Your task to perform on an android device: turn on sleep mode Image 0: 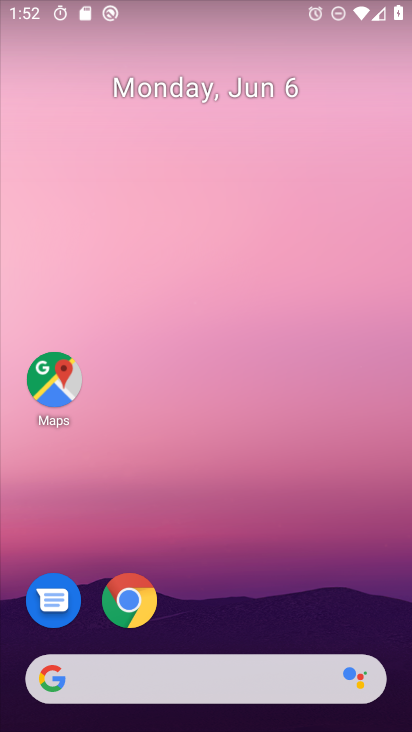
Step 0: drag from (224, 625) to (223, 188)
Your task to perform on an android device: turn on sleep mode Image 1: 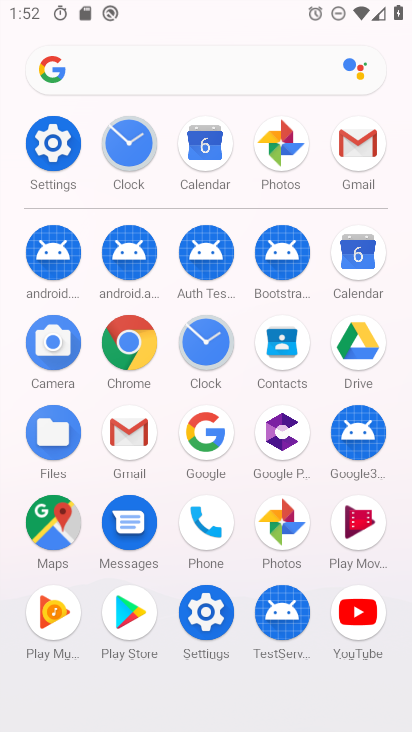
Step 1: click (58, 164)
Your task to perform on an android device: turn on sleep mode Image 2: 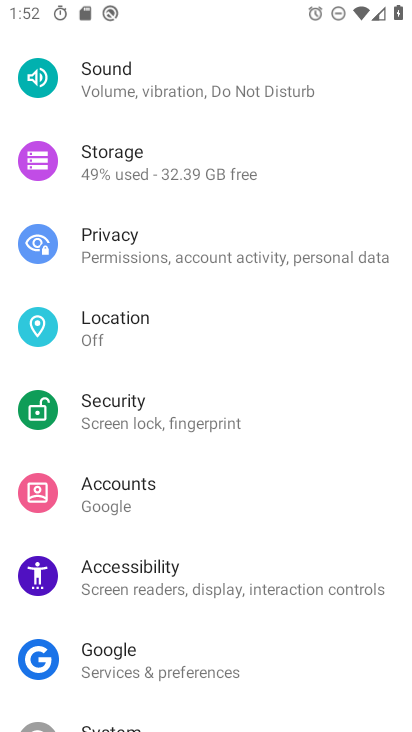
Step 2: drag from (197, 142) to (197, 524)
Your task to perform on an android device: turn on sleep mode Image 3: 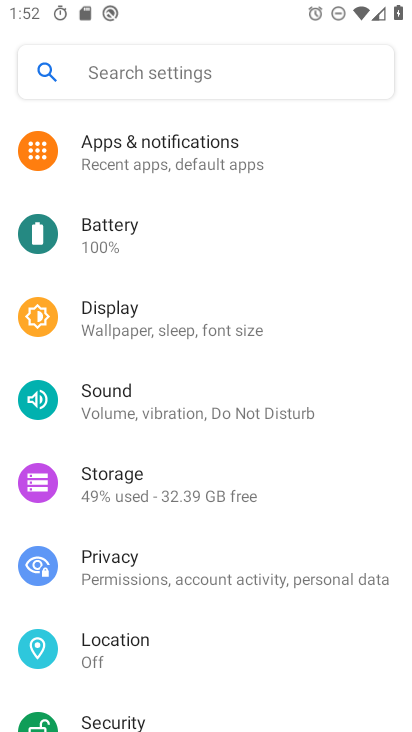
Step 3: click (168, 329)
Your task to perform on an android device: turn on sleep mode Image 4: 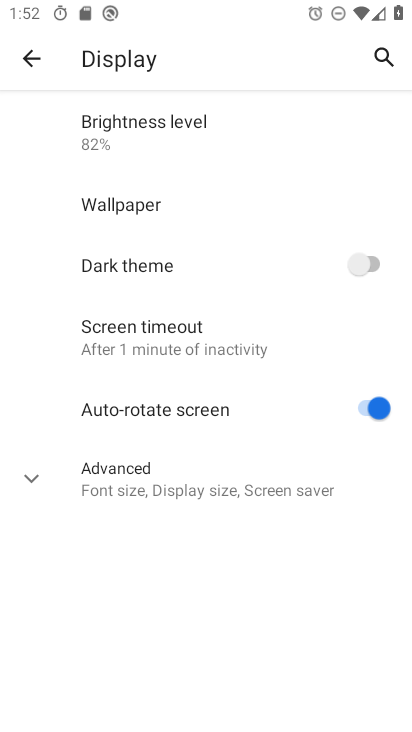
Step 4: click (191, 341)
Your task to perform on an android device: turn on sleep mode Image 5: 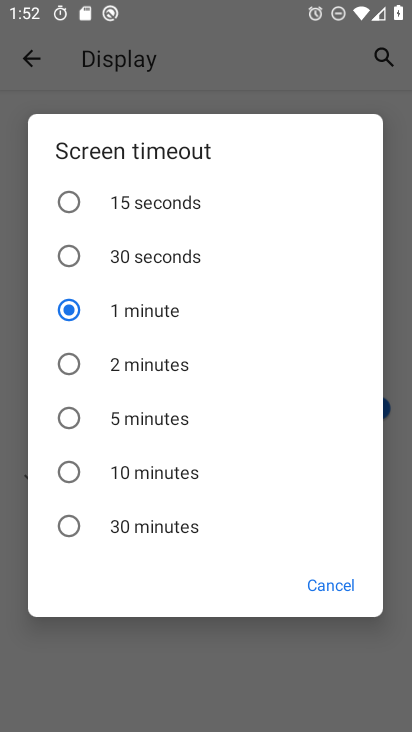
Step 5: click (182, 434)
Your task to perform on an android device: turn on sleep mode Image 6: 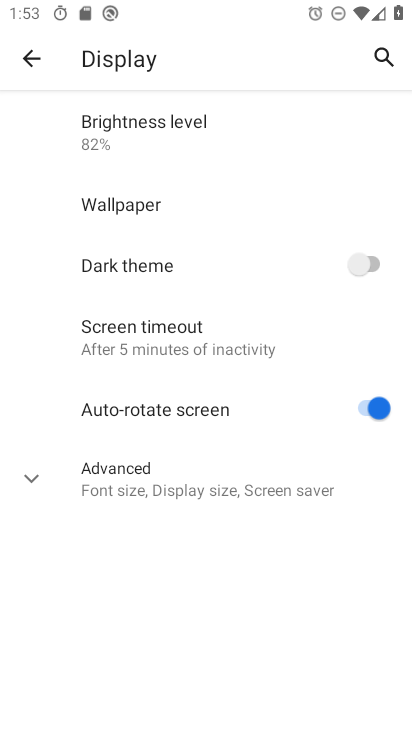
Step 6: click (163, 321)
Your task to perform on an android device: turn on sleep mode Image 7: 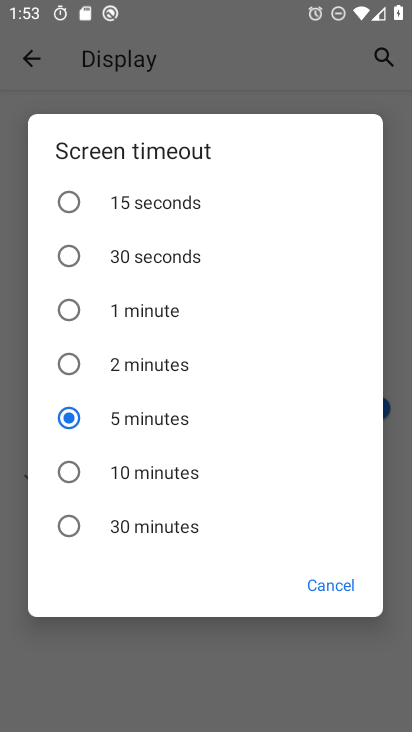
Step 7: click (156, 369)
Your task to perform on an android device: turn on sleep mode Image 8: 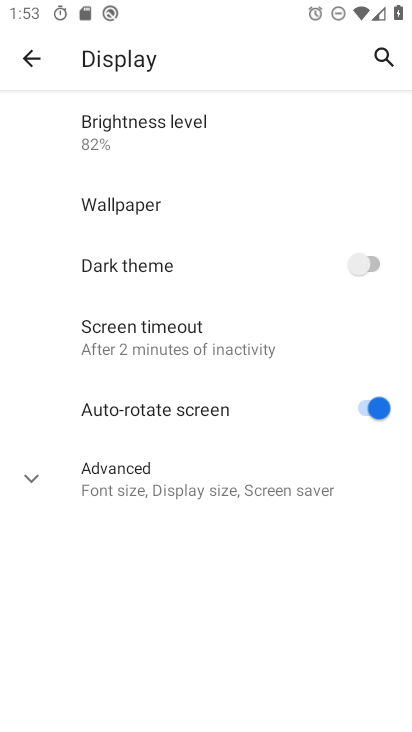
Step 8: task complete